Your task to perform on an android device: Open Google Maps and go to "Timeline" Image 0: 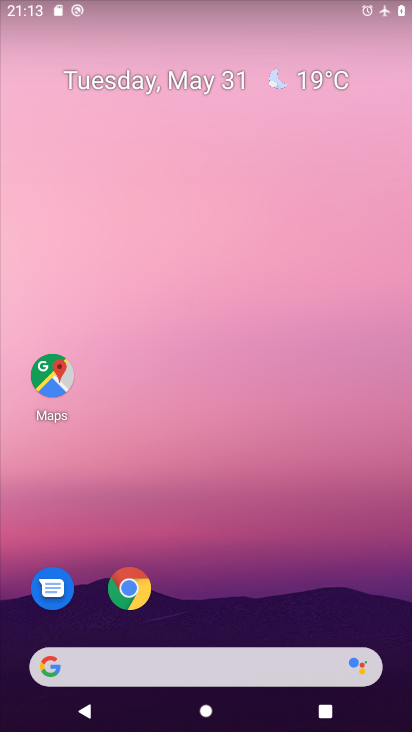
Step 0: click (55, 375)
Your task to perform on an android device: Open Google Maps and go to "Timeline" Image 1: 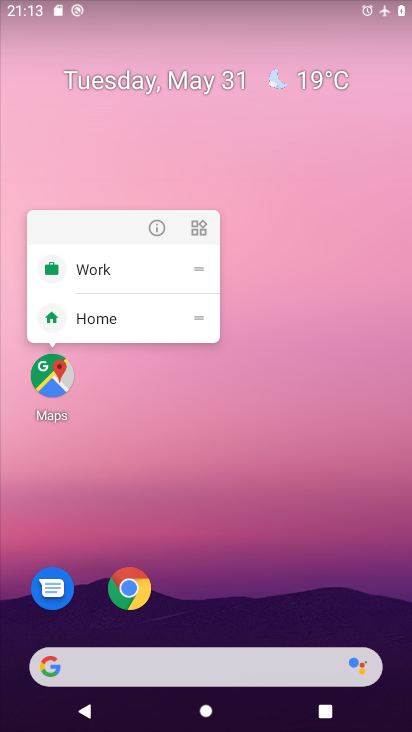
Step 1: click (53, 384)
Your task to perform on an android device: Open Google Maps and go to "Timeline" Image 2: 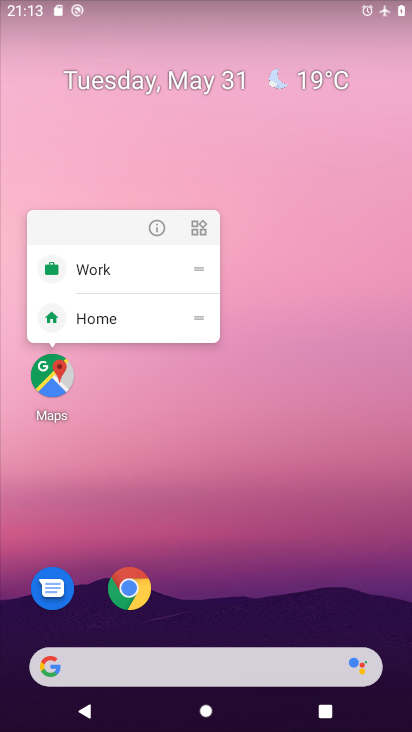
Step 2: click (51, 378)
Your task to perform on an android device: Open Google Maps and go to "Timeline" Image 3: 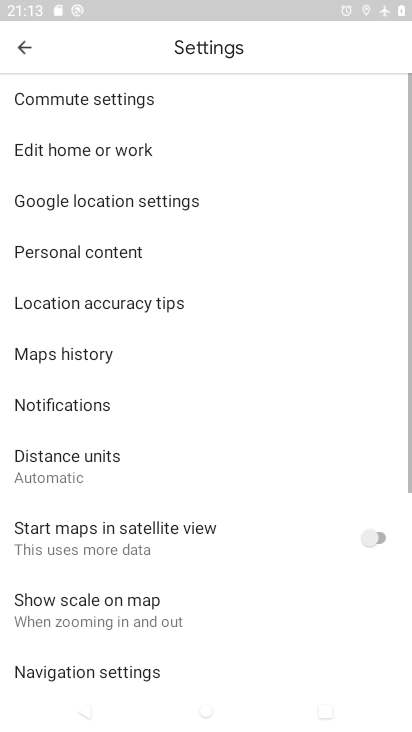
Step 3: click (244, 322)
Your task to perform on an android device: Open Google Maps and go to "Timeline" Image 4: 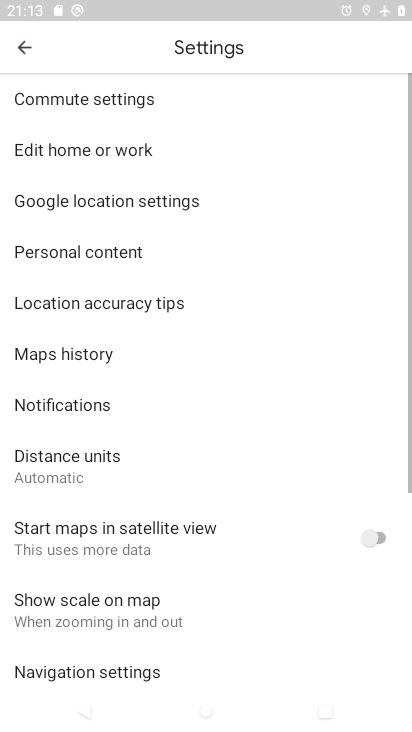
Step 4: click (244, 322)
Your task to perform on an android device: Open Google Maps and go to "Timeline" Image 5: 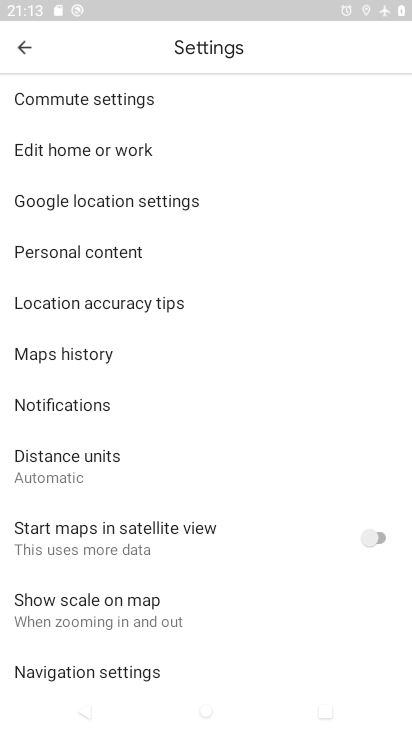
Step 5: click (28, 43)
Your task to perform on an android device: Open Google Maps and go to "Timeline" Image 6: 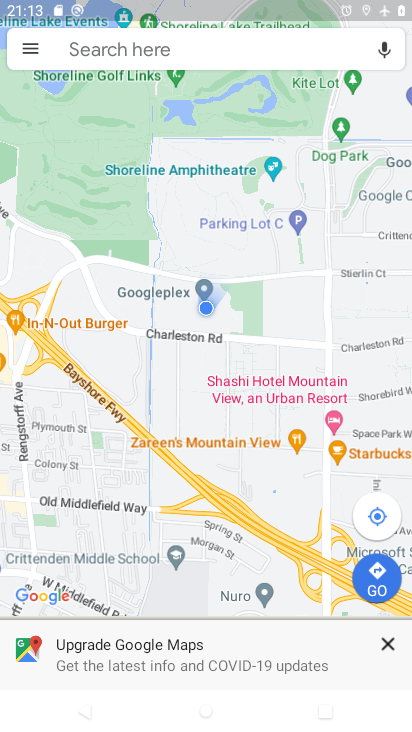
Step 6: click (25, 44)
Your task to perform on an android device: Open Google Maps and go to "Timeline" Image 7: 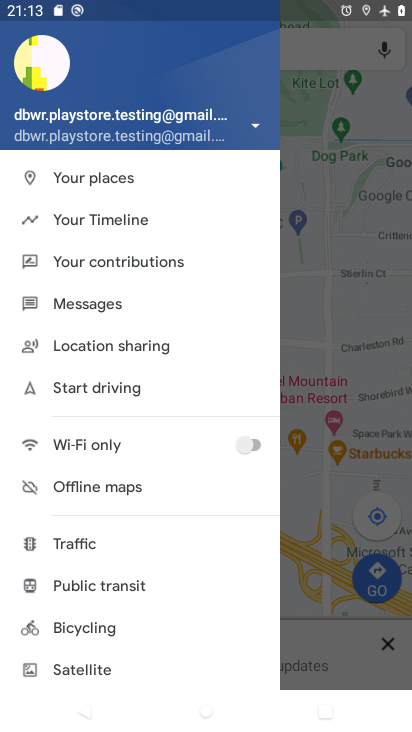
Step 7: click (110, 216)
Your task to perform on an android device: Open Google Maps and go to "Timeline" Image 8: 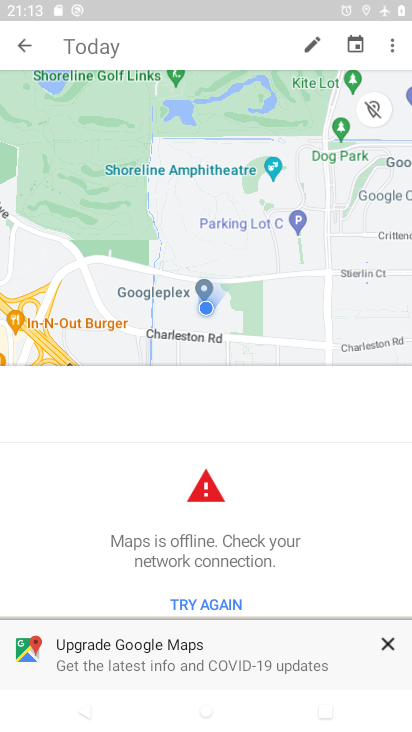
Step 8: press home button
Your task to perform on an android device: Open Google Maps and go to "Timeline" Image 9: 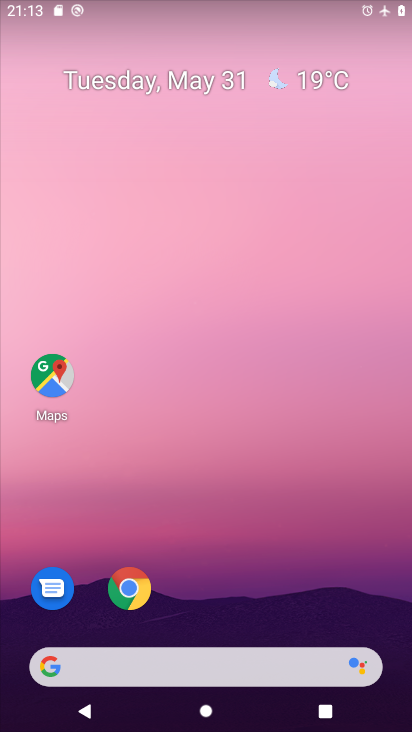
Step 9: drag from (188, 593) to (261, 118)
Your task to perform on an android device: Open Google Maps and go to "Timeline" Image 10: 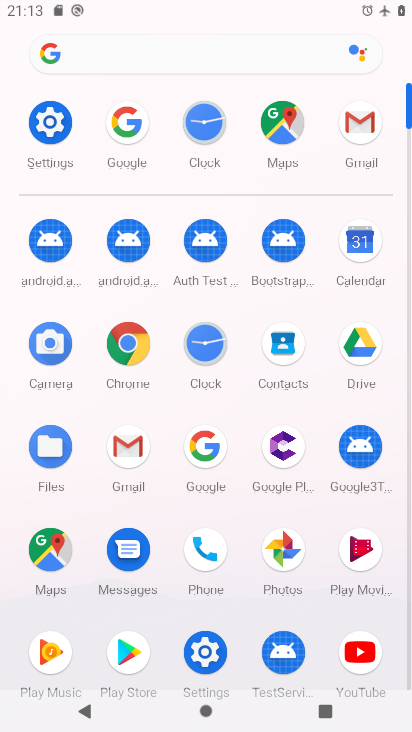
Step 10: click (47, 115)
Your task to perform on an android device: Open Google Maps and go to "Timeline" Image 11: 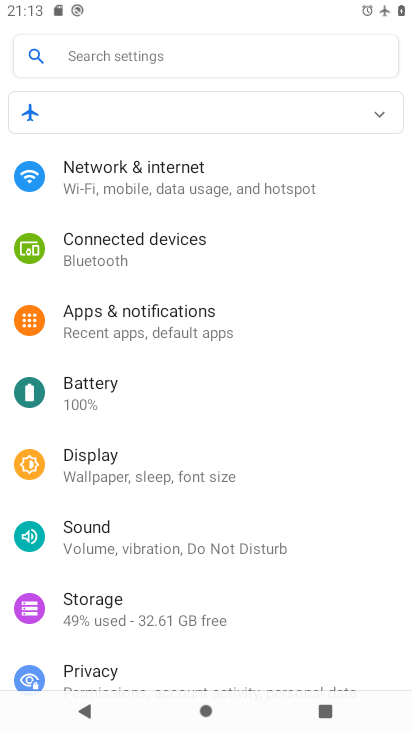
Step 11: click (185, 179)
Your task to perform on an android device: Open Google Maps and go to "Timeline" Image 12: 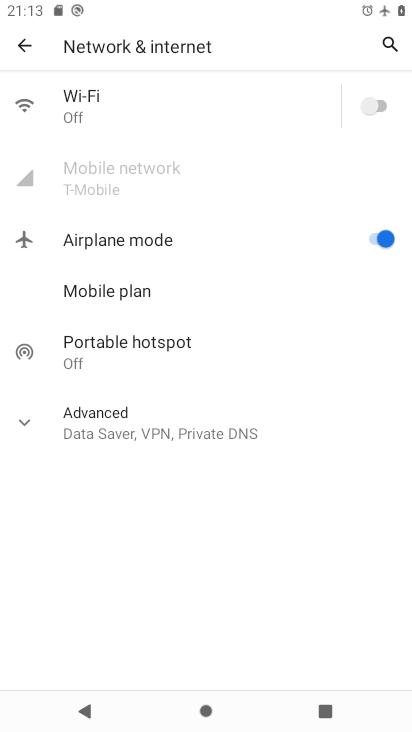
Step 12: click (381, 102)
Your task to perform on an android device: Open Google Maps and go to "Timeline" Image 13: 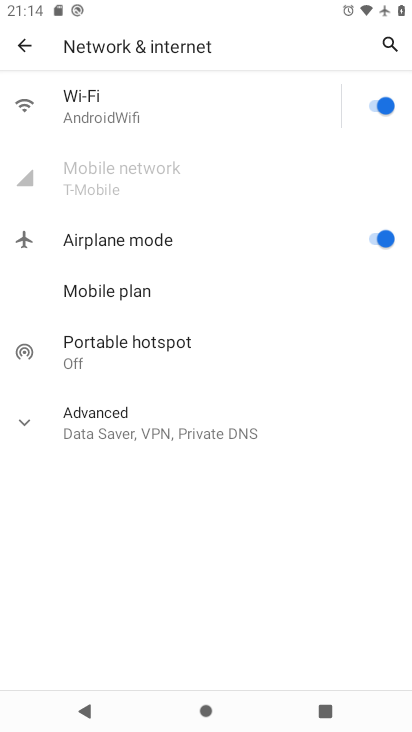
Step 13: task complete